Your task to perform on an android device: open device folders in google photos Image 0: 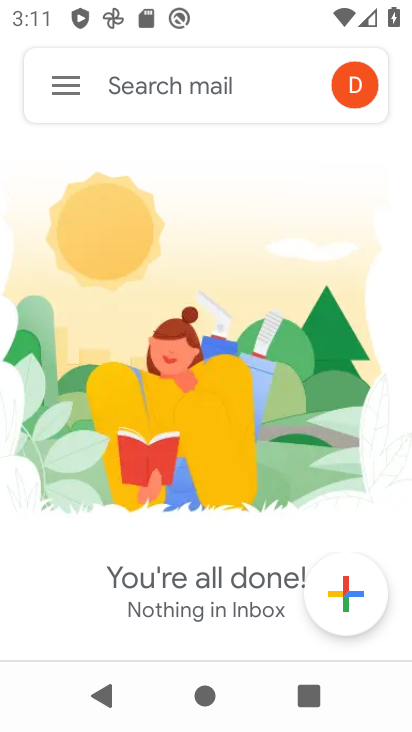
Step 0: press home button
Your task to perform on an android device: open device folders in google photos Image 1: 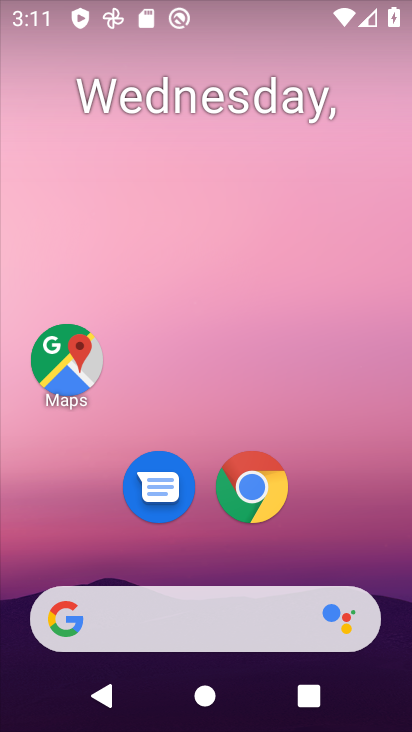
Step 1: drag from (363, 500) to (363, 159)
Your task to perform on an android device: open device folders in google photos Image 2: 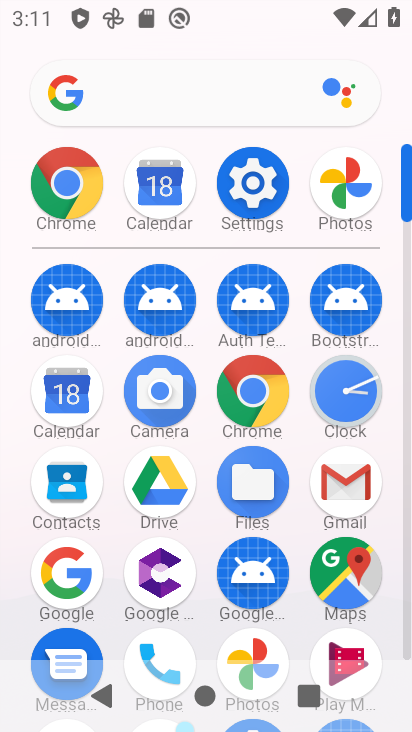
Step 2: drag from (391, 527) to (394, 348)
Your task to perform on an android device: open device folders in google photos Image 3: 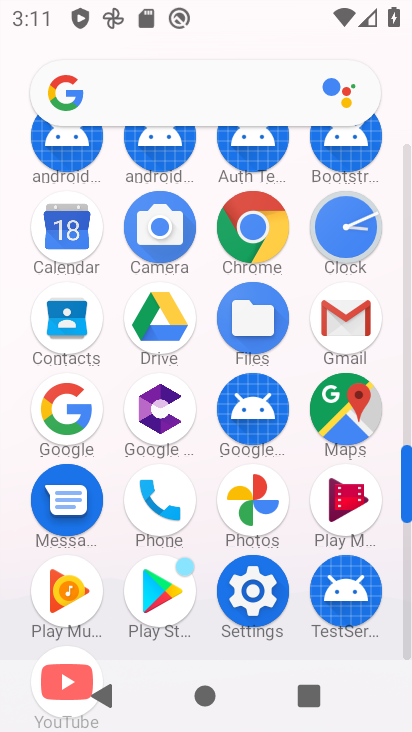
Step 3: click (270, 498)
Your task to perform on an android device: open device folders in google photos Image 4: 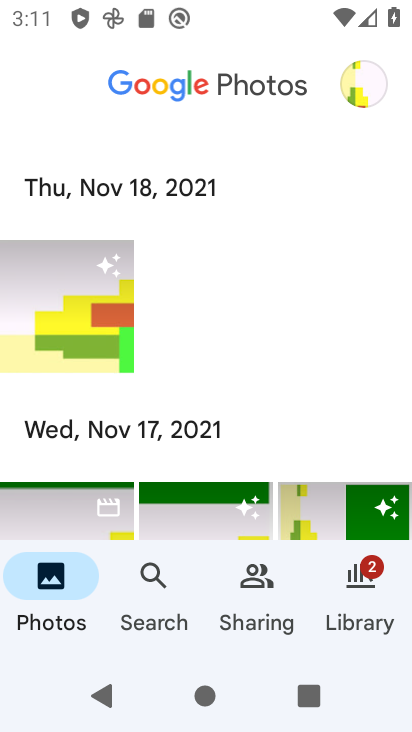
Step 4: click (354, 83)
Your task to perform on an android device: open device folders in google photos Image 5: 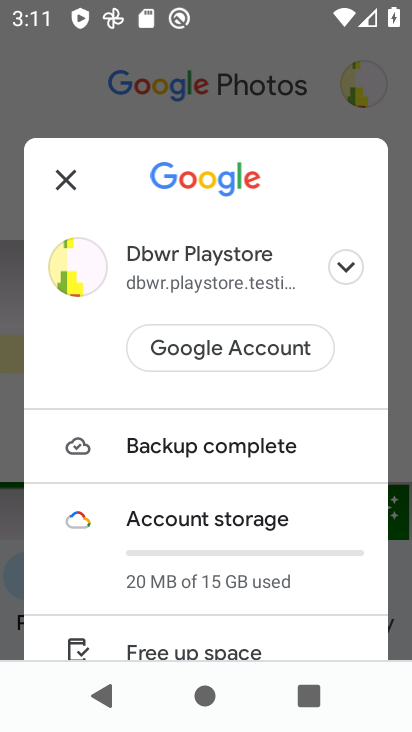
Step 5: drag from (323, 543) to (324, 347)
Your task to perform on an android device: open device folders in google photos Image 6: 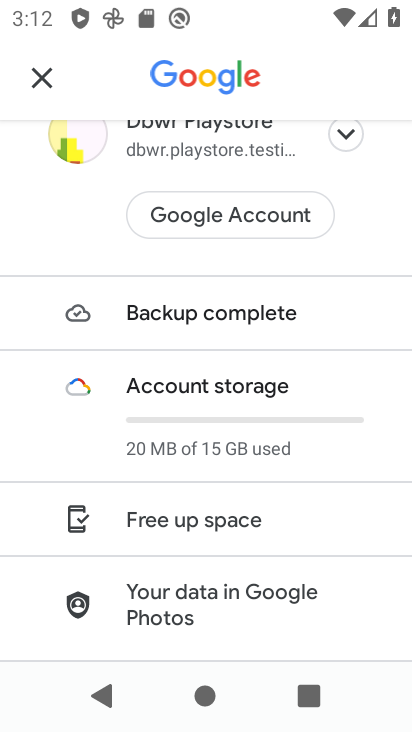
Step 6: drag from (352, 581) to (356, 373)
Your task to perform on an android device: open device folders in google photos Image 7: 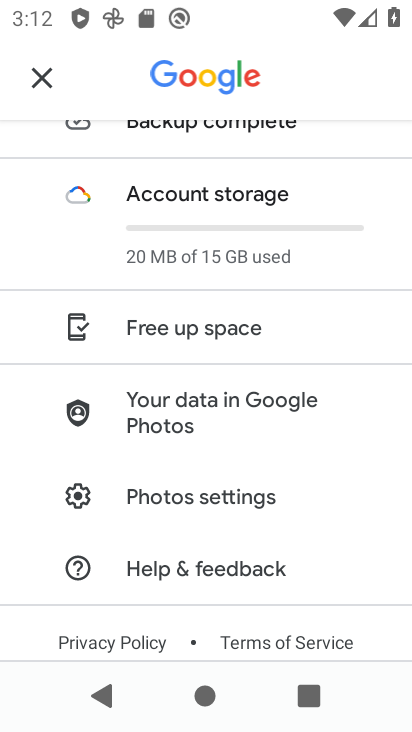
Step 7: drag from (338, 588) to (340, 410)
Your task to perform on an android device: open device folders in google photos Image 8: 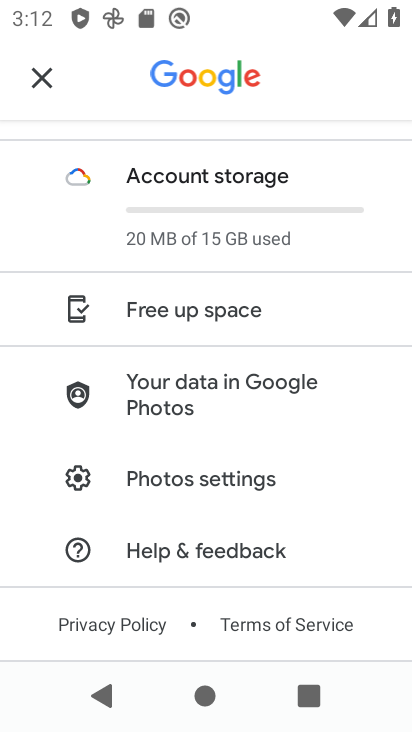
Step 8: click (29, 76)
Your task to perform on an android device: open device folders in google photos Image 9: 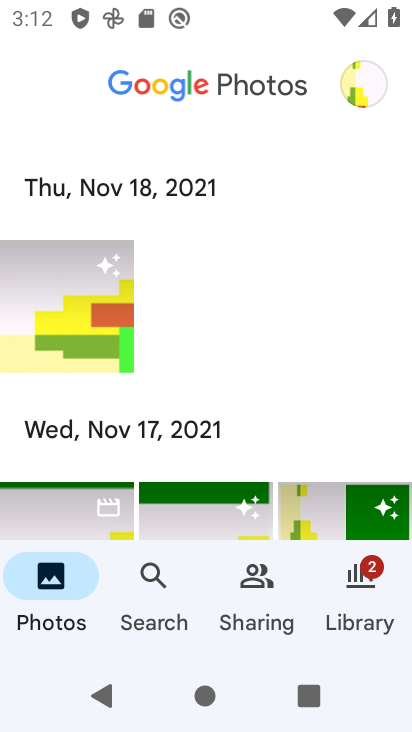
Step 9: task complete